Your task to perform on an android device: set the stopwatch Image 0: 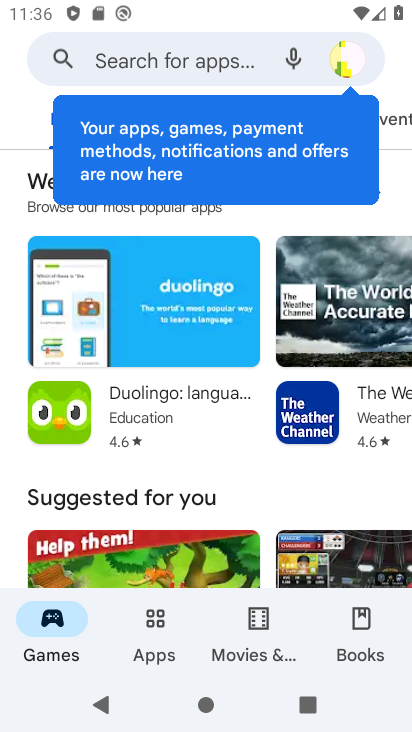
Step 0: press home button
Your task to perform on an android device: set the stopwatch Image 1: 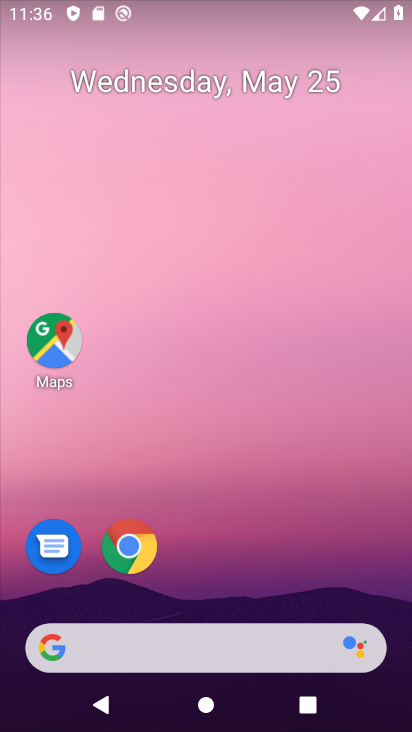
Step 1: drag from (229, 589) to (236, 47)
Your task to perform on an android device: set the stopwatch Image 2: 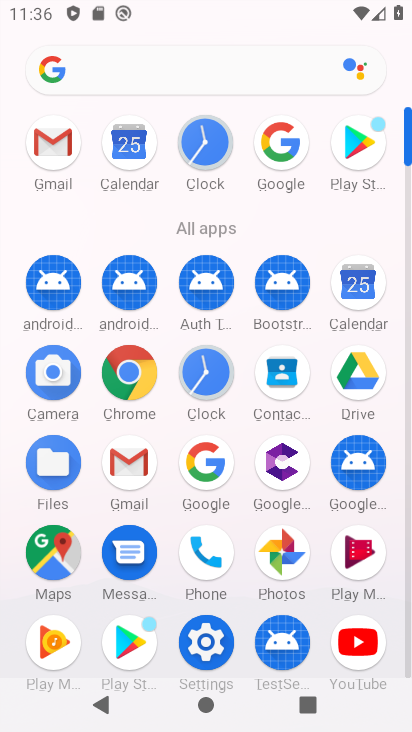
Step 2: click (213, 373)
Your task to perform on an android device: set the stopwatch Image 3: 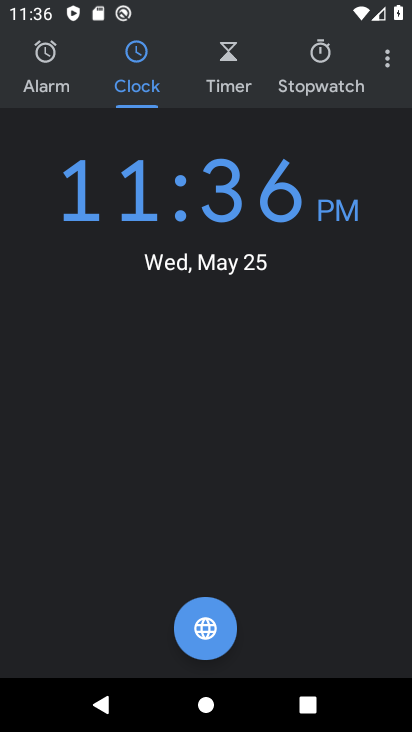
Step 3: click (334, 71)
Your task to perform on an android device: set the stopwatch Image 4: 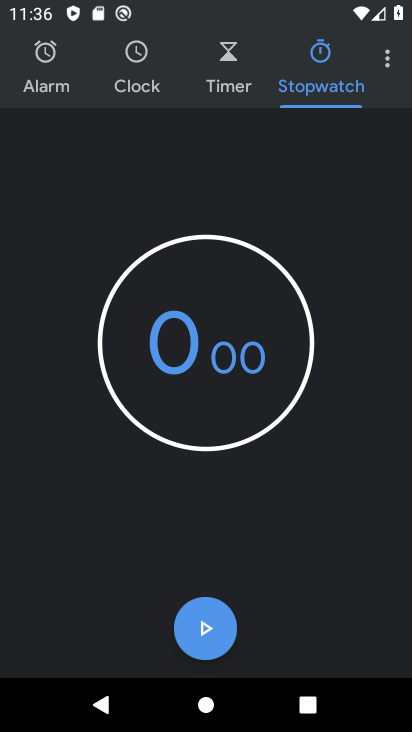
Step 4: click (205, 628)
Your task to perform on an android device: set the stopwatch Image 5: 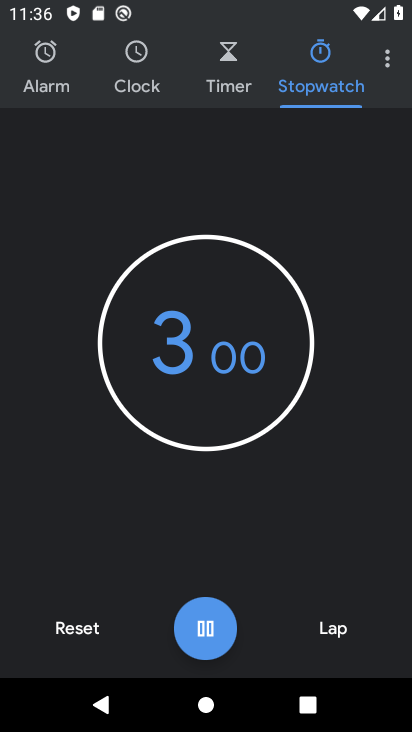
Step 5: task complete